Your task to perform on an android device: Open my contact list Image 0: 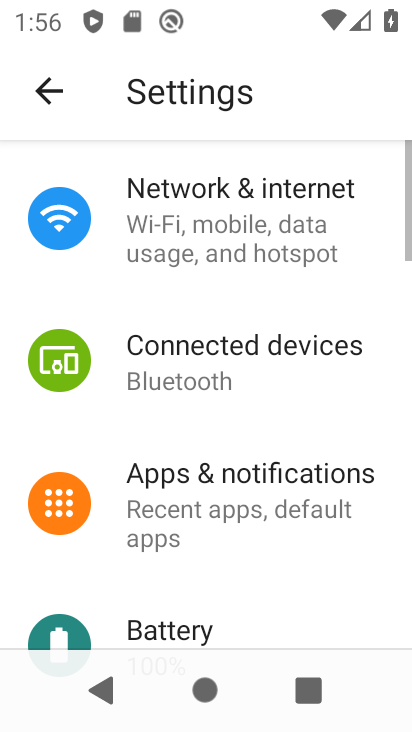
Step 0: press home button
Your task to perform on an android device: Open my contact list Image 1: 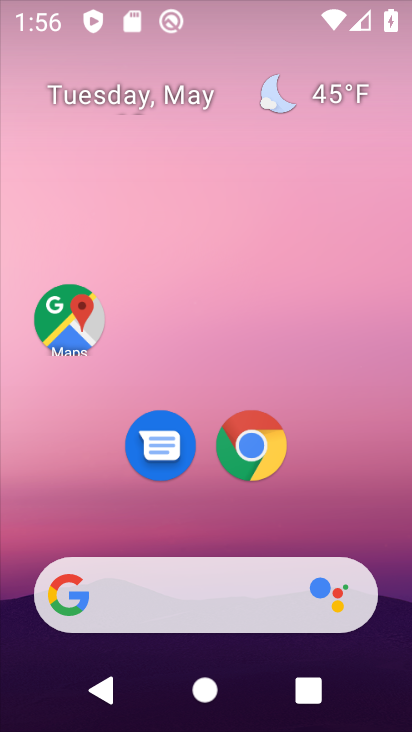
Step 1: drag from (310, 512) to (342, 120)
Your task to perform on an android device: Open my contact list Image 2: 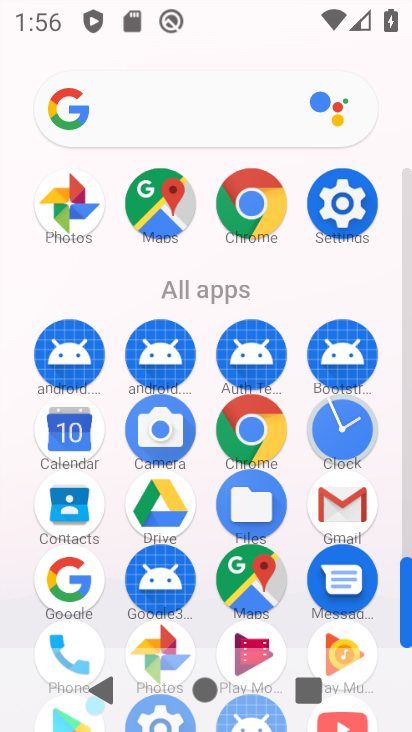
Step 2: drag from (205, 413) to (233, 82)
Your task to perform on an android device: Open my contact list Image 3: 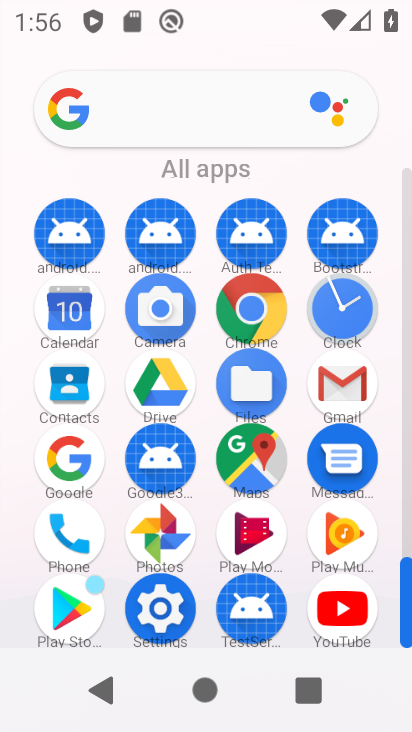
Step 3: click (67, 387)
Your task to perform on an android device: Open my contact list Image 4: 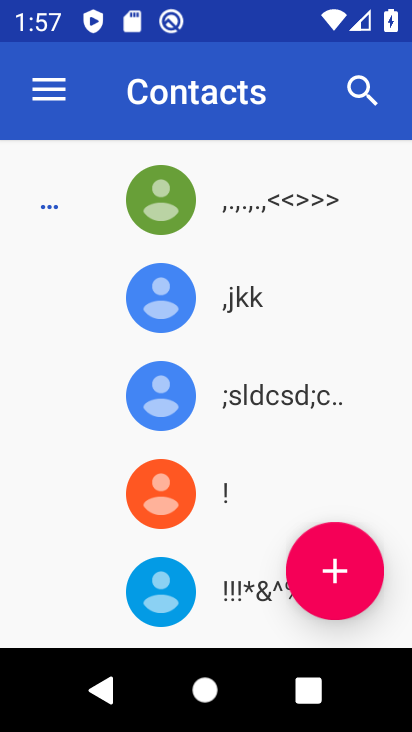
Step 4: task complete